Your task to perform on an android device: open app "PUBG MOBILE" Image 0: 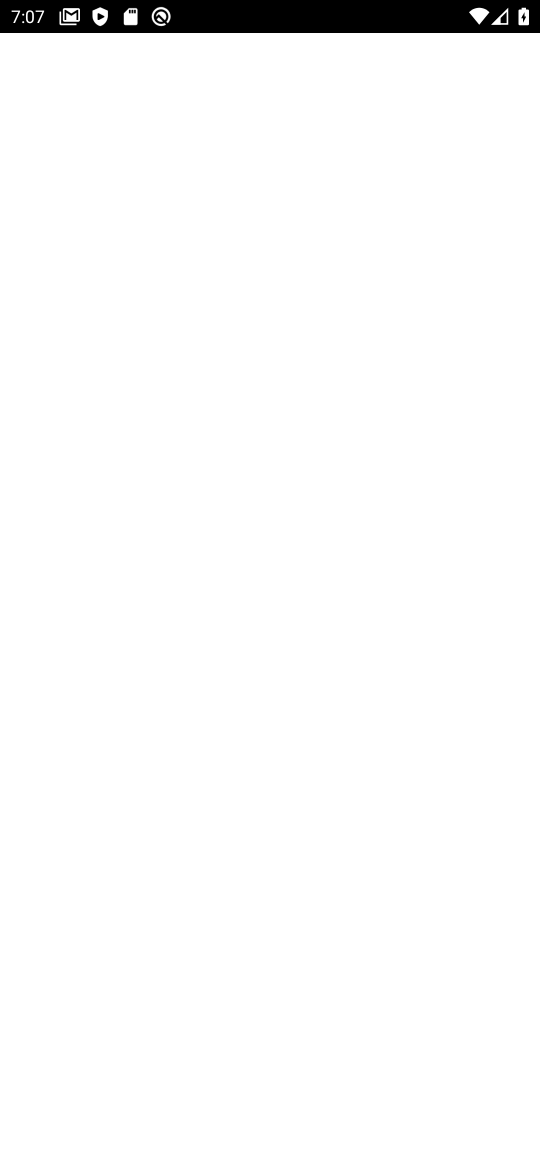
Step 0: press home button
Your task to perform on an android device: open app "PUBG MOBILE" Image 1: 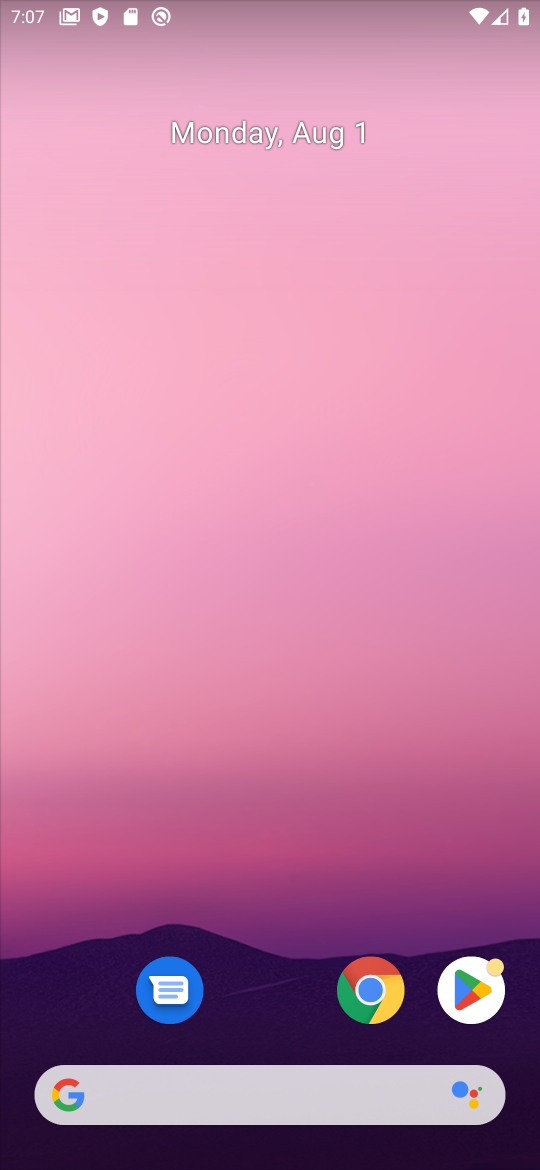
Step 1: click (446, 990)
Your task to perform on an android device: open app "PUBG MOBILE" Image 2: 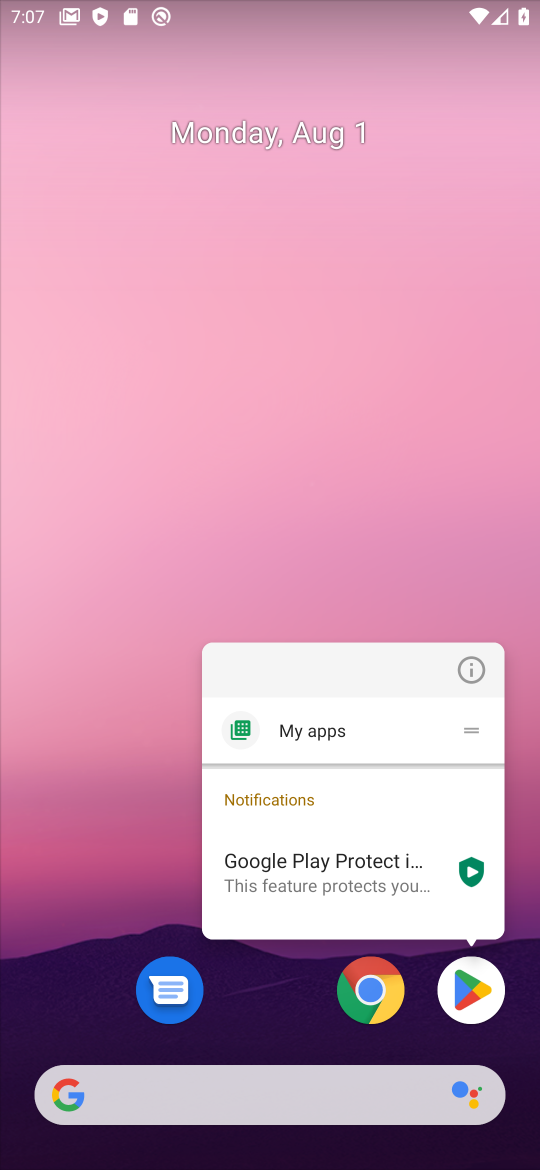
Step 2: click (487, 1001)
Your task to perform on an android device: open app "PUBG MOBILE" Image 3: 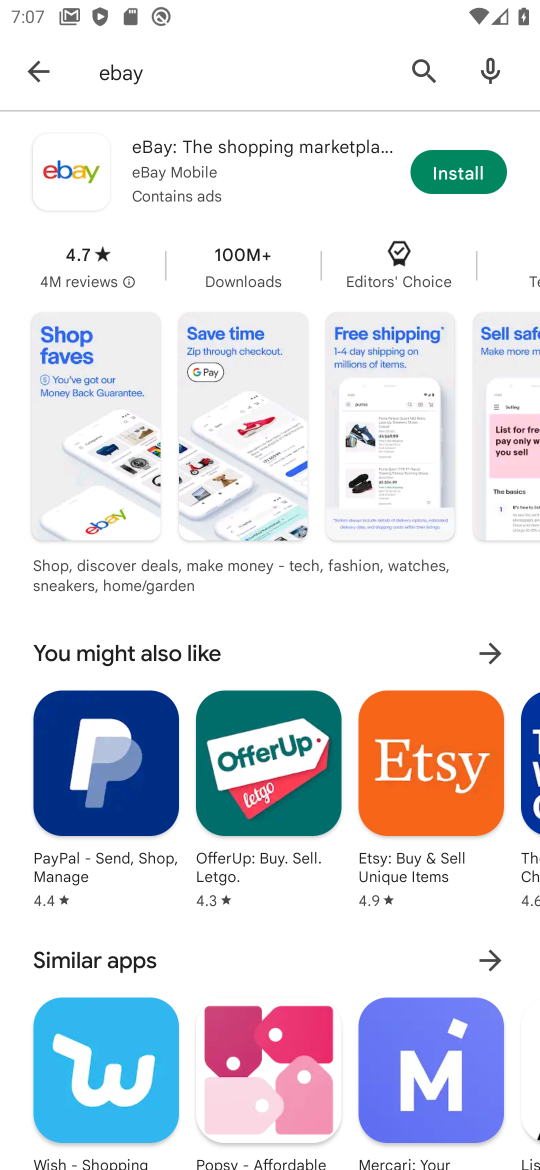
Step 3: click (424, 77)
Your task to perform on an android device: open app "PUBG MOBILE" Image 4: 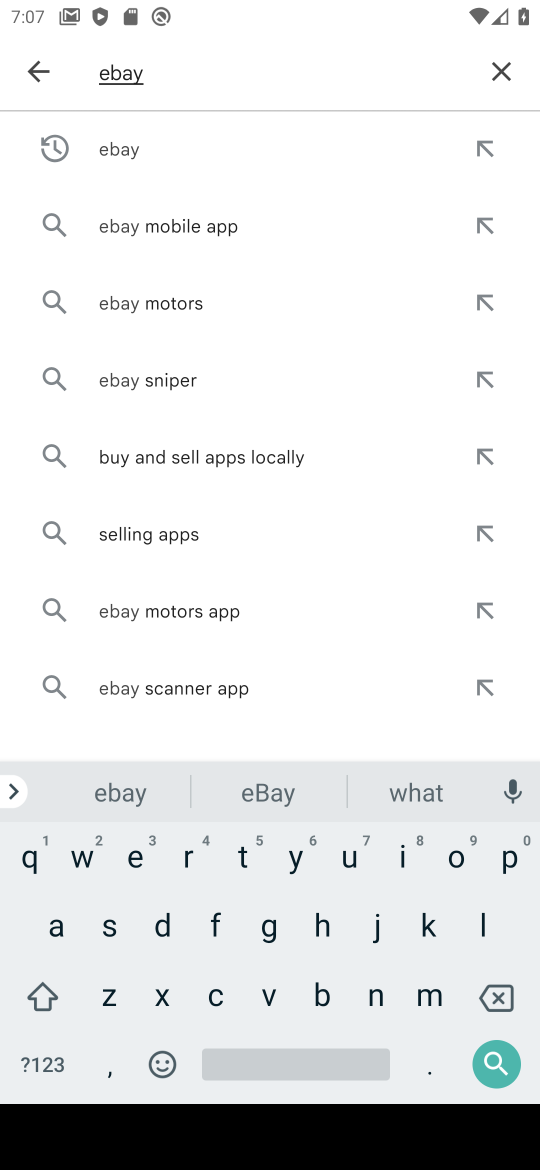
Step 4: click (492, 68)
Your task to perform on an android device: open app "PUBG MOBILE" Image 5: 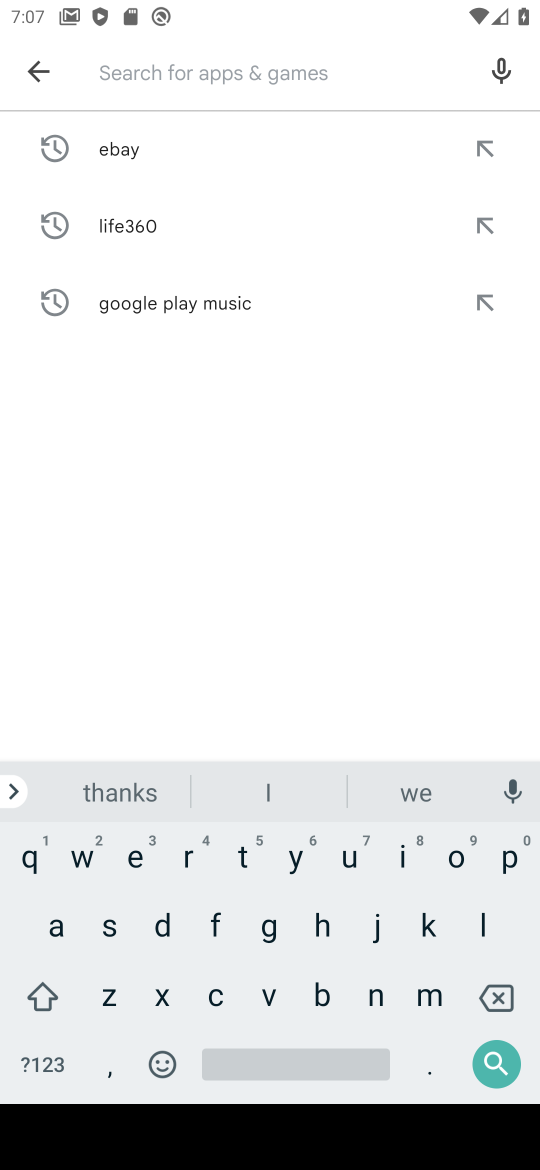
Step 5: click (509, 860)
Your task to perform on an android device: open app "PUBG MOBILE" Image 6: 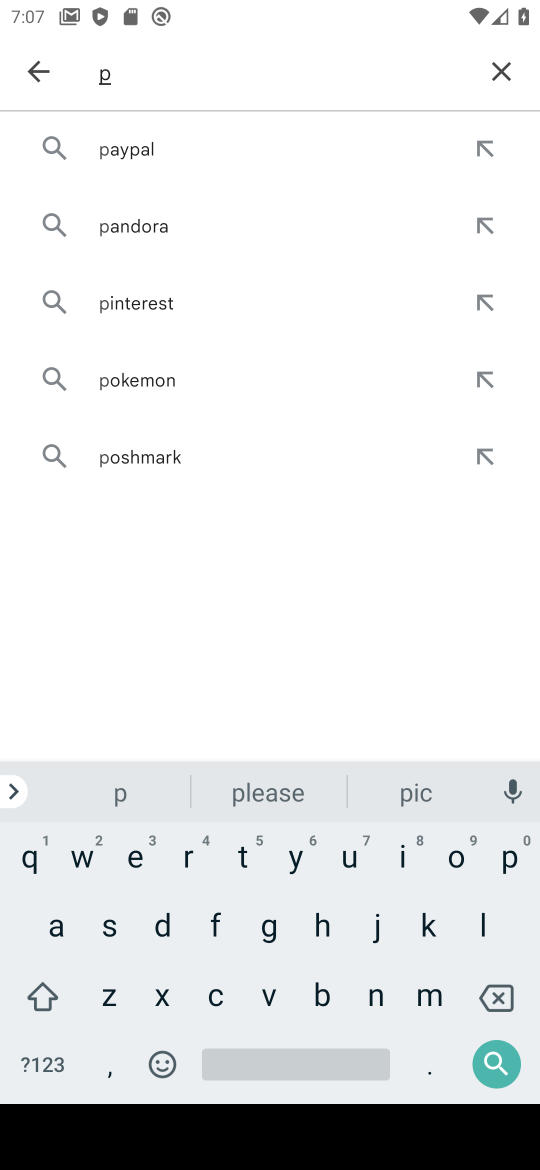
Step 6: click (356, 855)
Your task to perform on an android device: open app "PUBG MOBILE" Image 7: 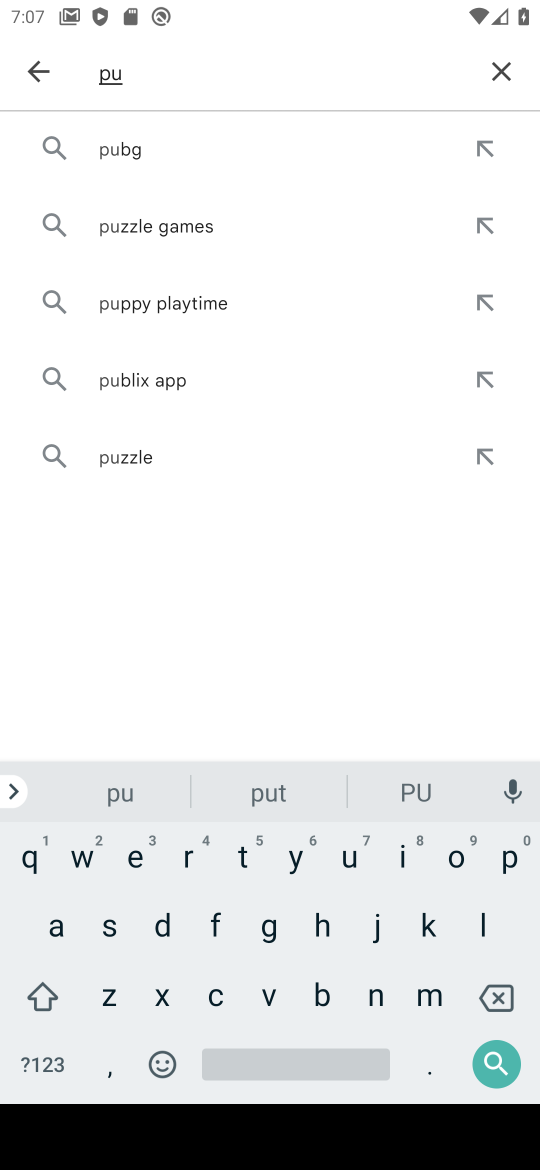
Step 7: click (314, 990)
Your task to perform on an android device: open app "PUBG MOBILE" Image 8: 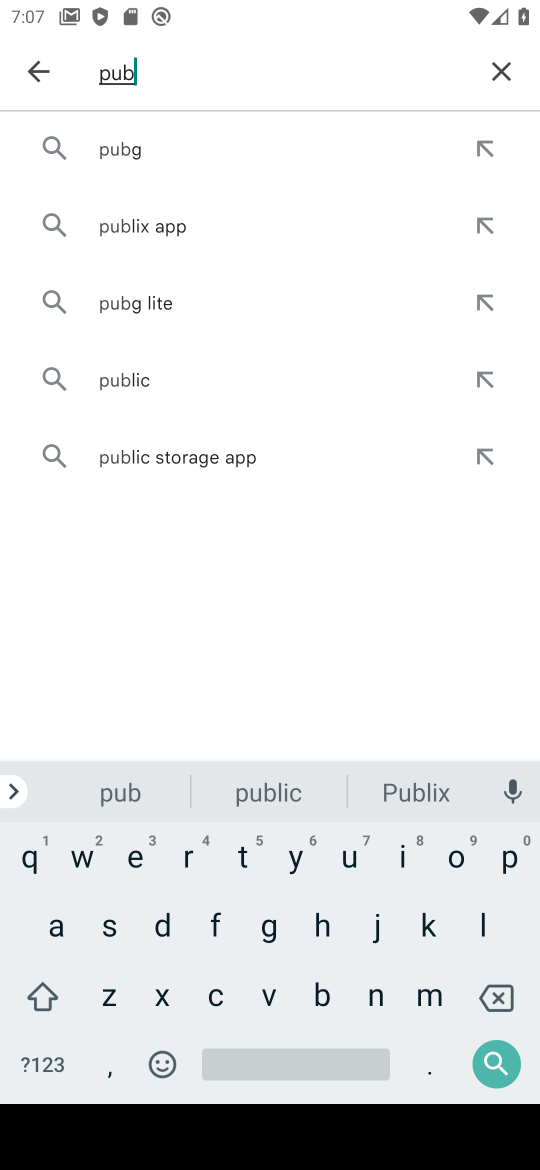
Step 8: click (272, 914)
Your task to perform on an android device: open app "PUBG MOBILE" Image 9: 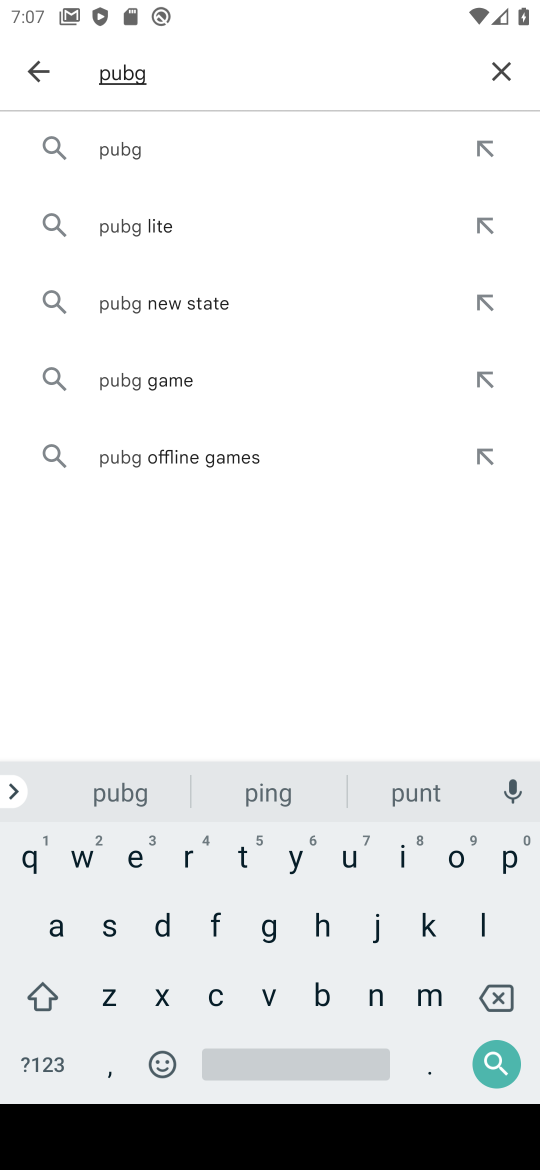
Step 9: click (258, 1051)
Your task to perform on an android device: open app "PUBG MOBILE" Image 10: 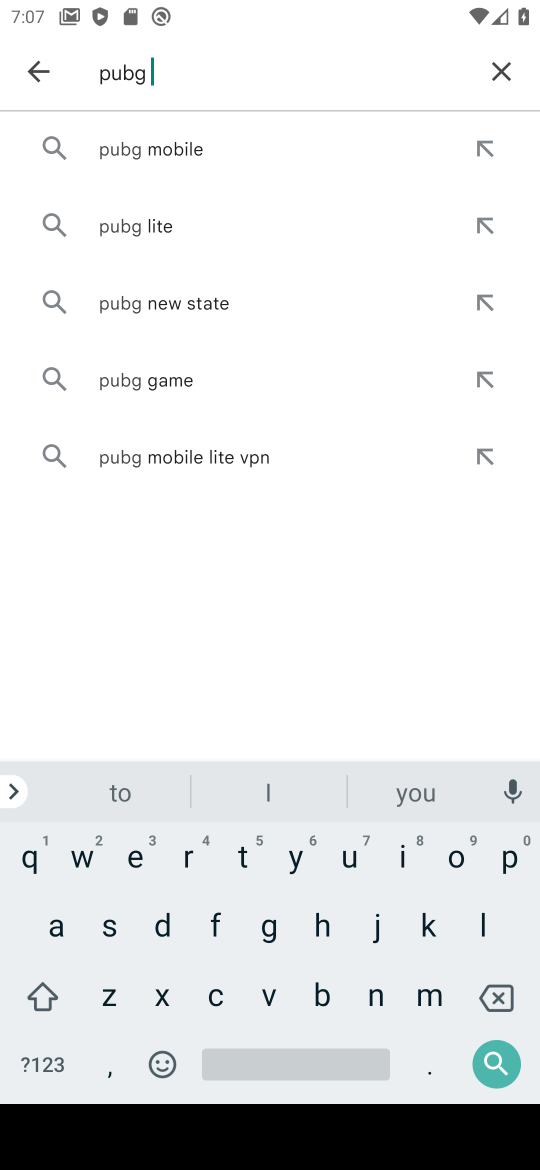
Step 10: click (432, 993)
Your task to perform on an android device: open app "PUBG MOBILE" Image 11: 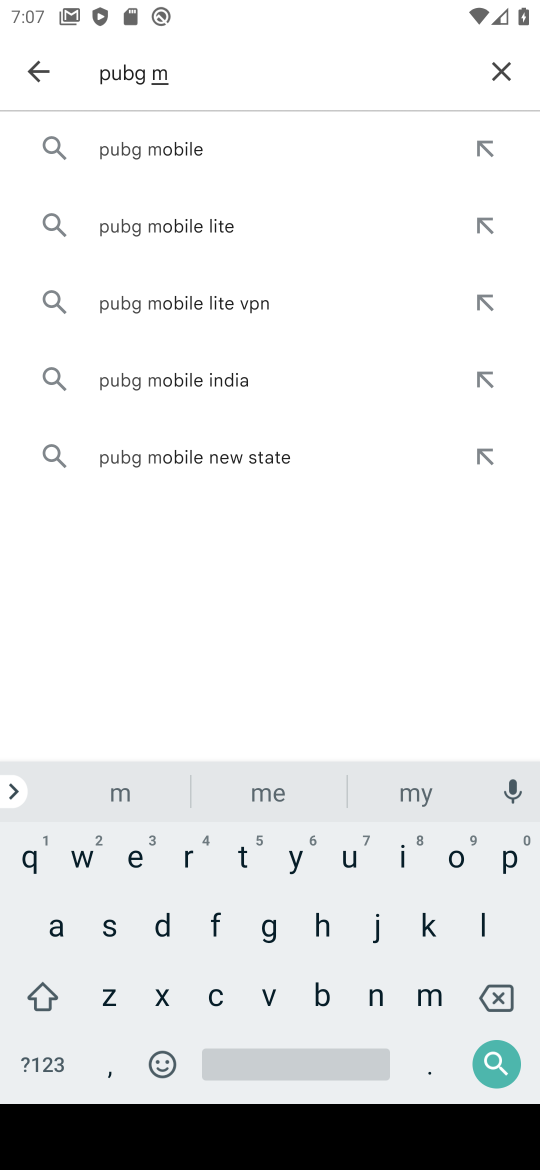
Step 11: click (218, 162)
Your task to perform on an android device: open app "PUBG MOBILE" Image 12: 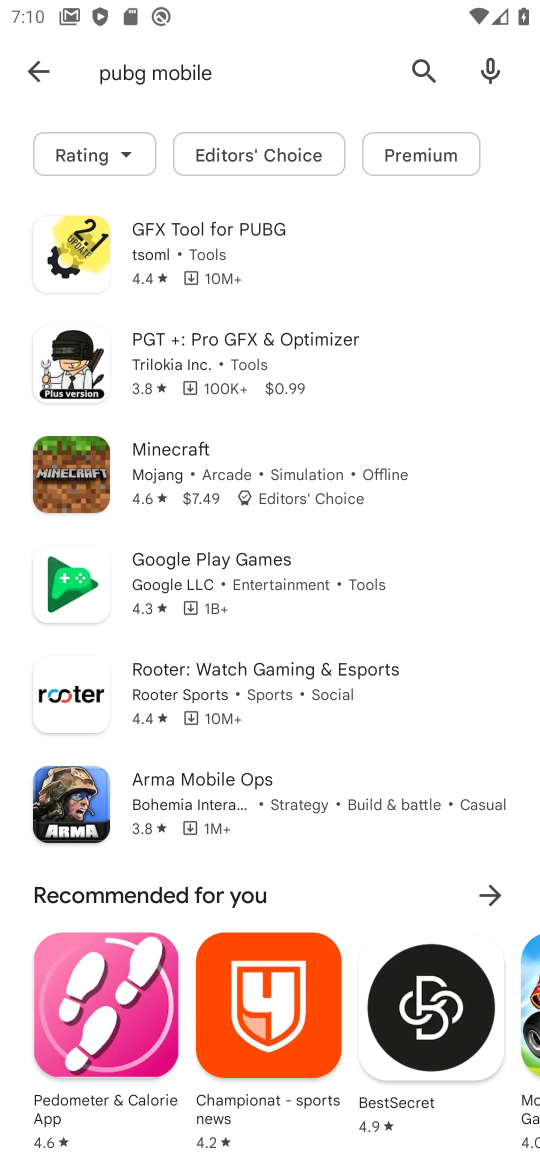
Step 12: task complete